Your task to perform on an android device: open app "Google Calendar" Image 0: 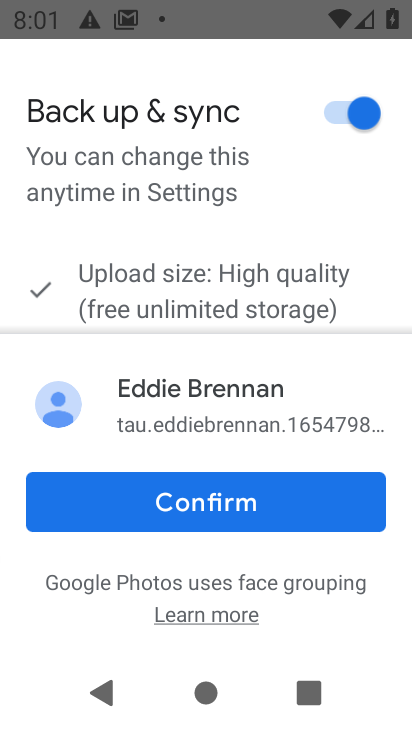
Step 0: press back button
Your task to perform on an android device: open app "Google Calendar" Image 1: 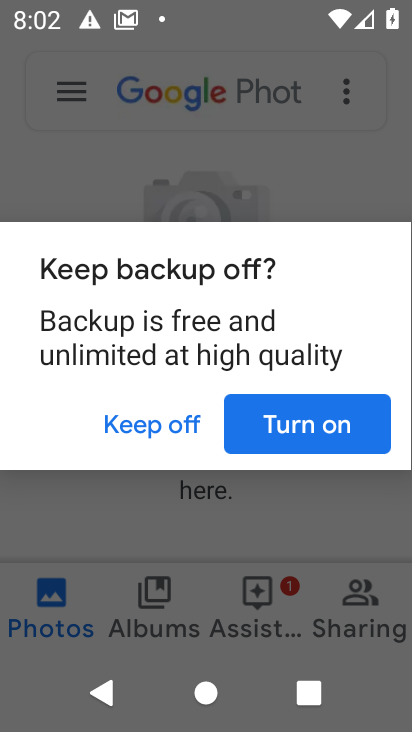
Step 1: press home button
Your task to perform on an android device: open app "Google Calendar" Image 2: 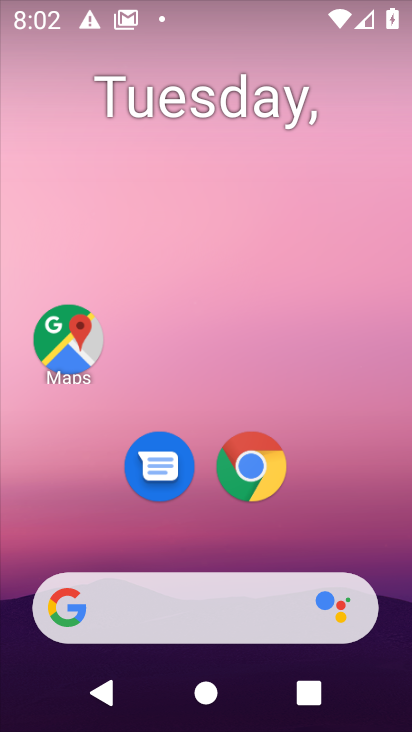
Step 2: drag from (205, 528) to (278, 5)
Your task to perform on an android device: open app "Google Calendar" Image 3: 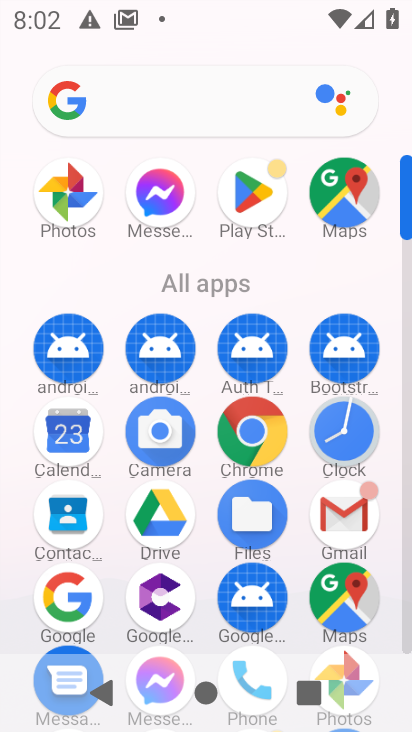
Step 3: click (269, 199)
Your task to perform on an android device: open app "Google Calendar" Image 4: 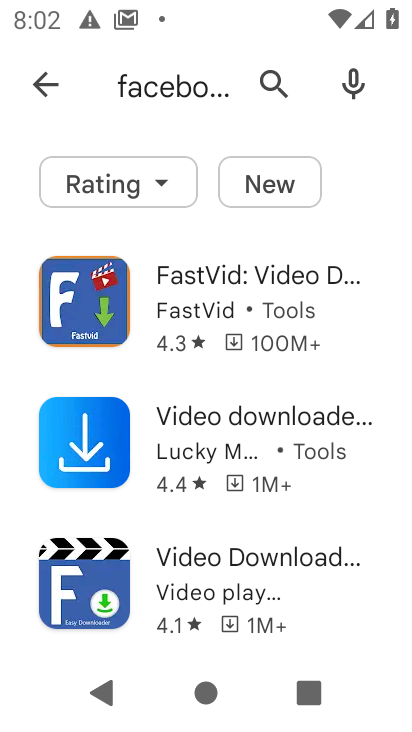
Step 4: click (260, 76)
Your task to perform on an android device: open app "Google Calendar" Image 5: 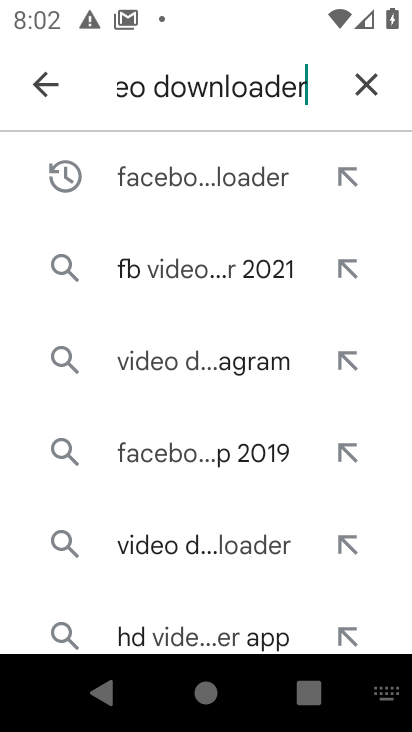
Step 5: click (369, 88)
Your task to perform on an android device: open app "Google Calendar" Image 6: 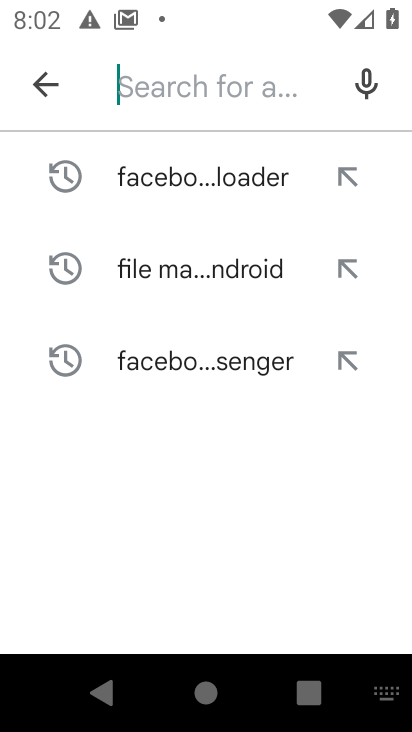
Step 6: click (224, 80)
Your task to perform on an android device: open app "Google Calendar" Image 7: 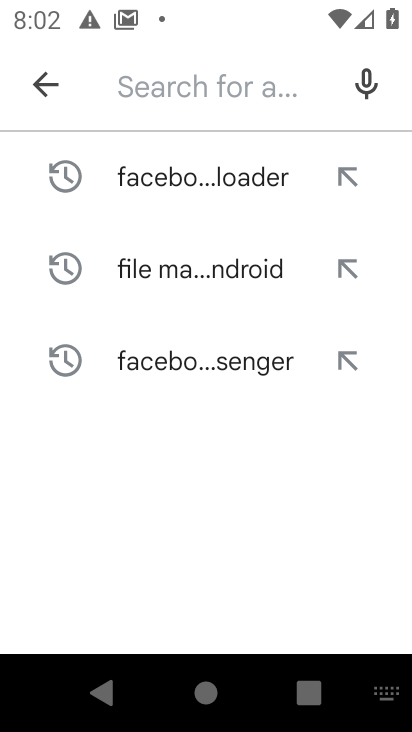
Step 7: type "Google Calendar"
Your task to perform on an android device: open app "Google Calendar" Image 8: 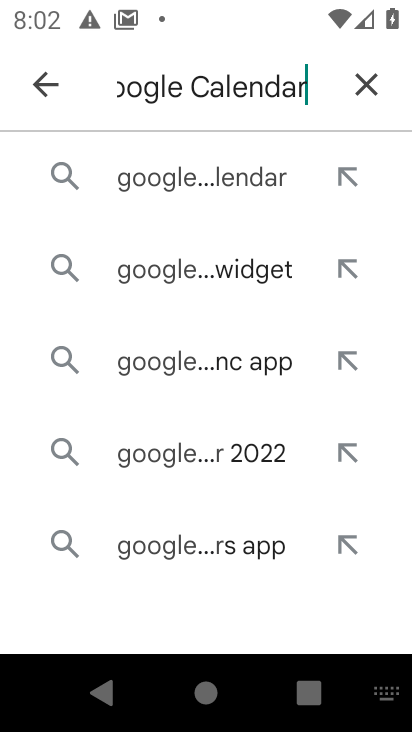
Step 8: click (205, 164)
Your task to perform on an android device: open app "Google Calendar" Image 9: 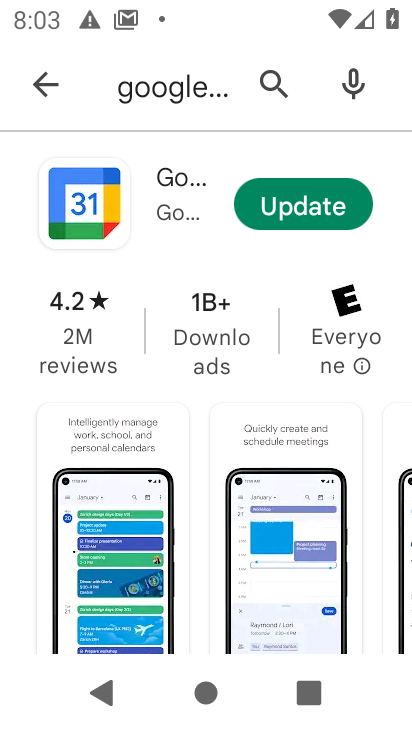
Step 9: click (190, 178)
Your task to perform on an android device: open app "Google Calendar" Image 10: 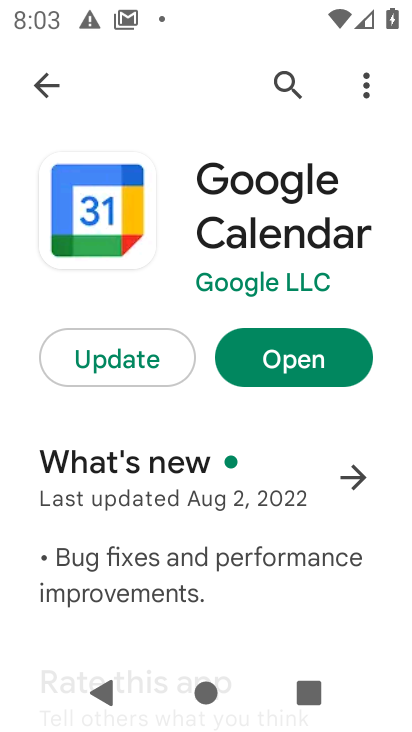
Step 10: click (322, 351)
Your task to perform on an android device: open app "Google Calendar" Image 11: 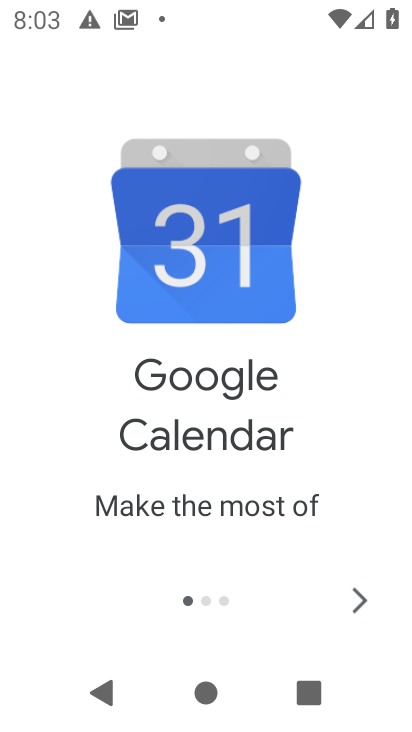
Step 11: task complete